Your task to perform on an android device: make emails show in primary in the gmail app Image 0: 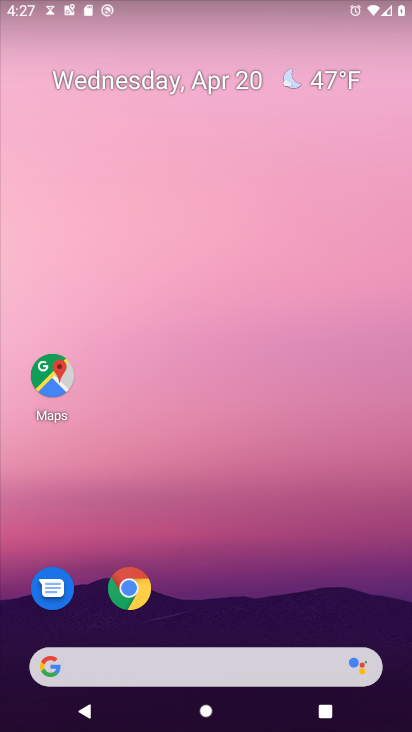
Step 0: drag from (236, 534) to (291, 37)
Your task to perform on an android device: make emails show in primary in the gmail app Image 1: 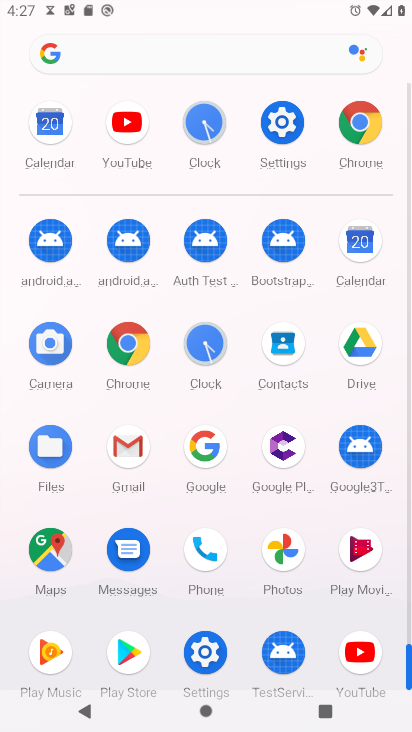
Step 1: click (127, 451)
Your task to perform on an android device: make emails show in primary in the gmail app Image 2: 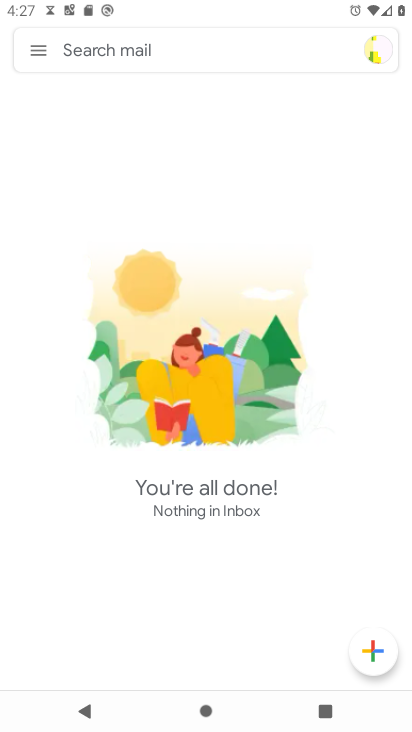
Step 2: click (38, 53)
Your task to perform on an android device: make emails show in primary in the gmail app Image 3: 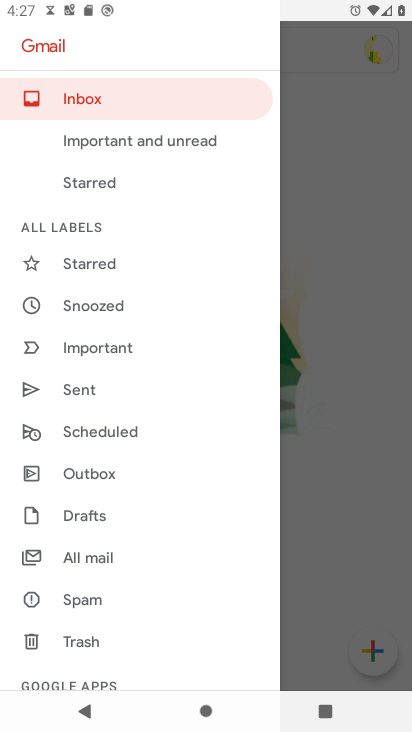
Step 3: drag from (168, 421) to (182, 346)
Your task to perform on an android device: make emails show in primary in the gmail app Image 4: 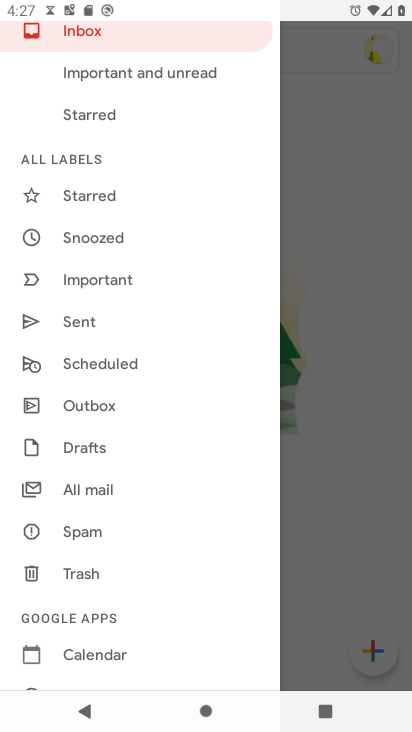
Step 4: drag from (192, 497) to (203, 366)
Your task to perform on an android device: make emails show in primary in the gmail app Image 5: 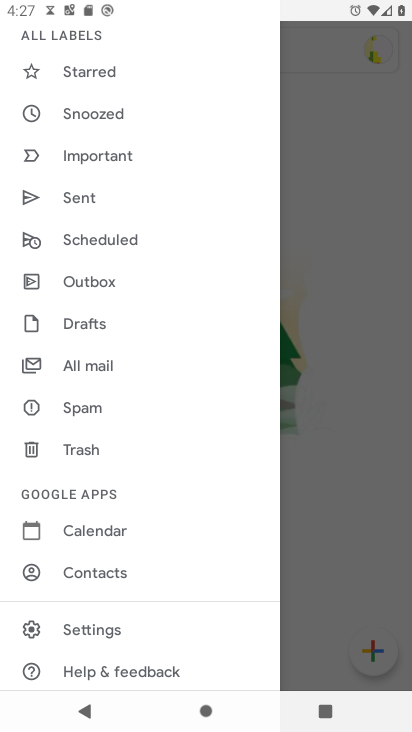
Step 5: click (123, 612)
Your task to perform on an android device: make emails show in primary in the gmail app Image 6: 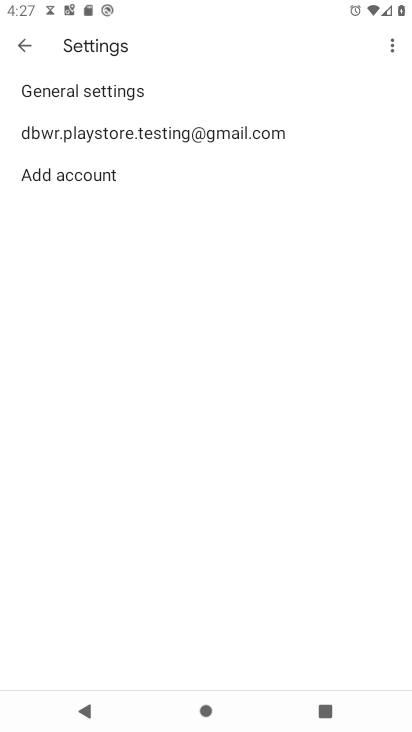
Step 6: click (306, 136)
Your task to perform on an android device: make emails show in primary in the gmail app Image 7: 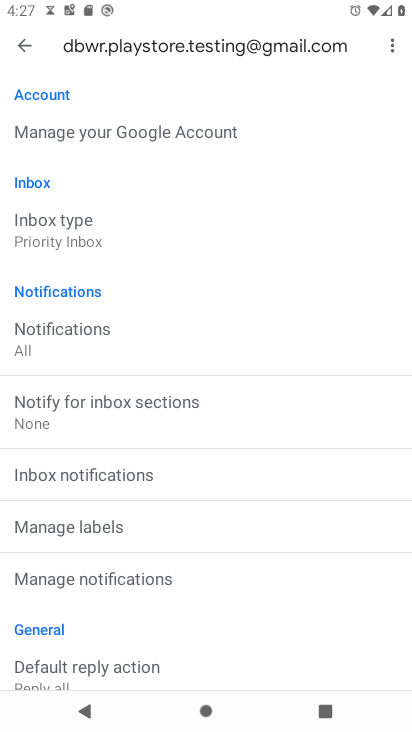
Step 7: click (188, 224)
Your task to perform on an android device: make emails show in primary in the gmail app Image 8: 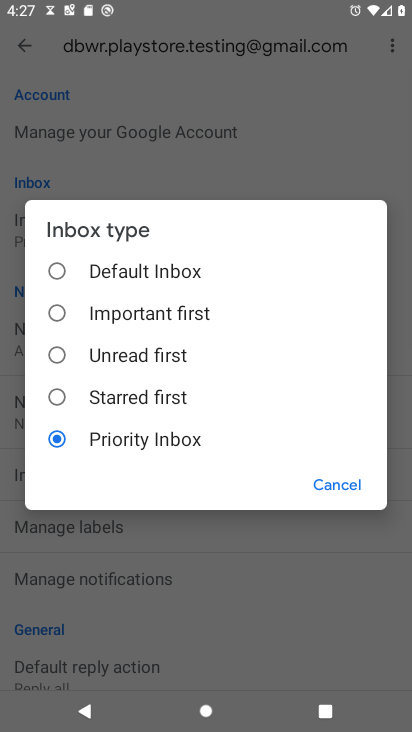
Step 8: click (204, 260)
Your task to perform on an android device: make emails show in primary in the gmail app Image 9: 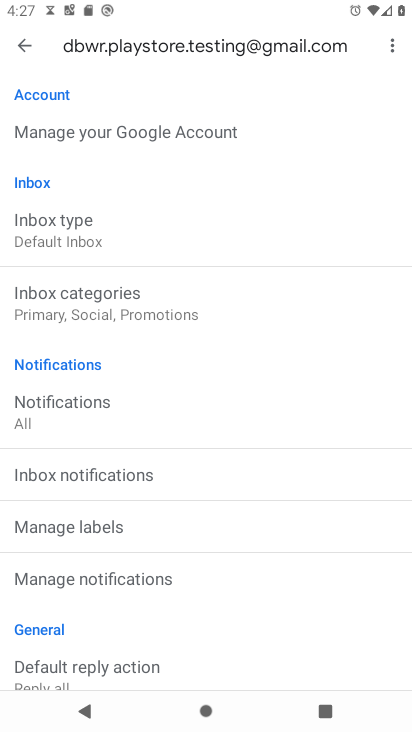
Step 9: task complete